Your task to perform on an android device: turn on the 12-hour format for clock Image 0: 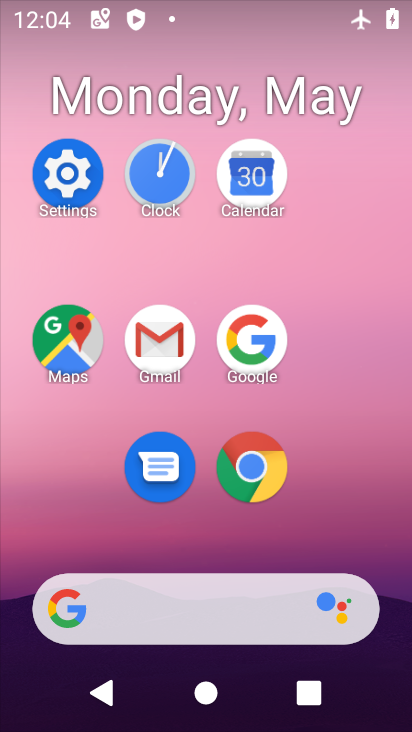
Step 0: click (175, 186)
Your task to perform on an android device: turn on the 12-hour format for clock Image 1: 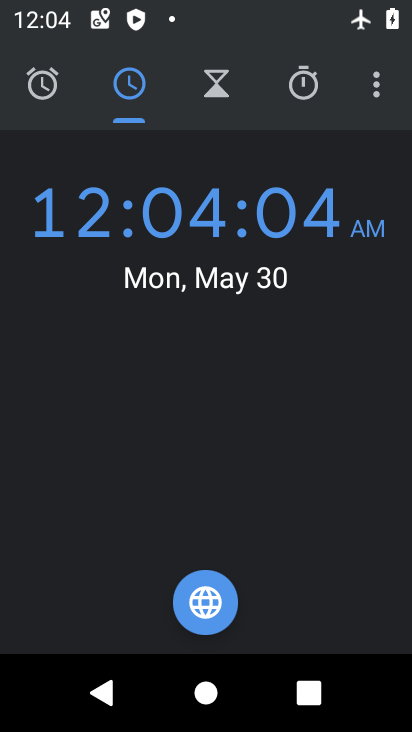
Step 1: click (360, 81)
Your task to perform on an android device: turn on the 12-hour format for clock Image 2: 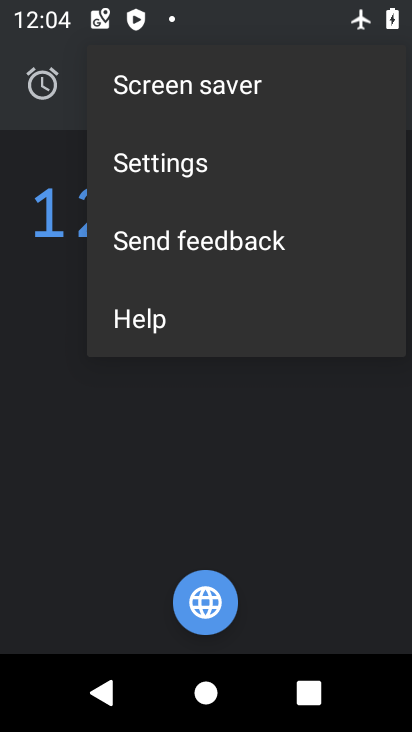
Step 2: click (113, 172)
Your task to perform on an android device: turn on the 12-hour format for clock Image 3: 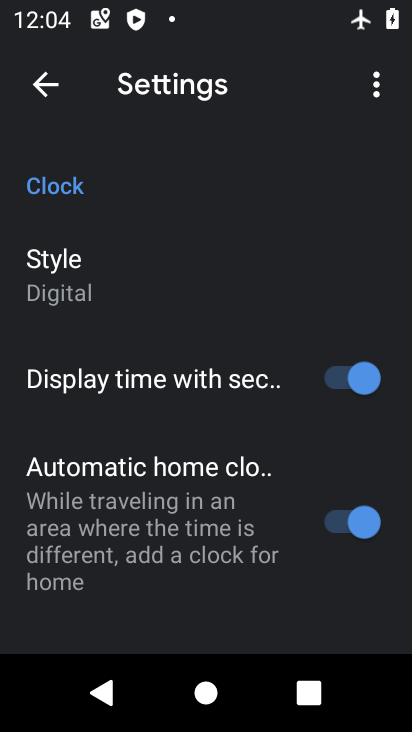
Step 3: drag from (272, 597) to (237, 169)
Your task to perform on an android device: turn on the 12-hour format for clock Image 4: 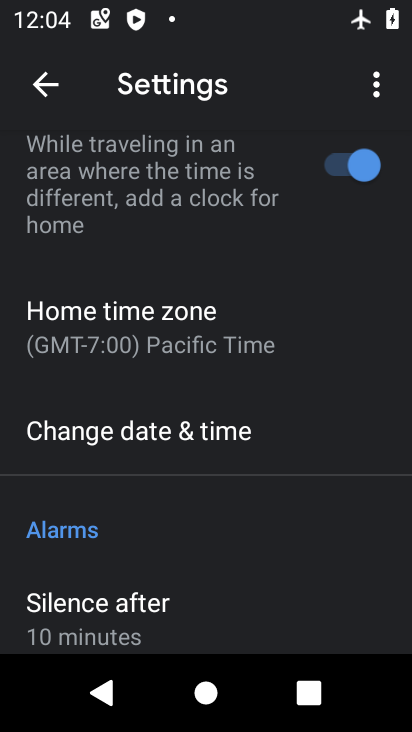
Step 4: click (267, 449)
Your task to perform on an android device: turn on the 12-hour format for clock Image 5: 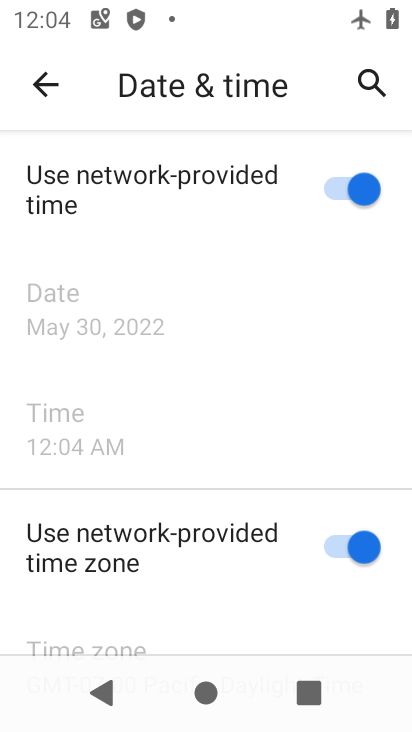
Step 5: task complete